Your task to perform on an android device: clear all cookies in the chrome app Image 0: 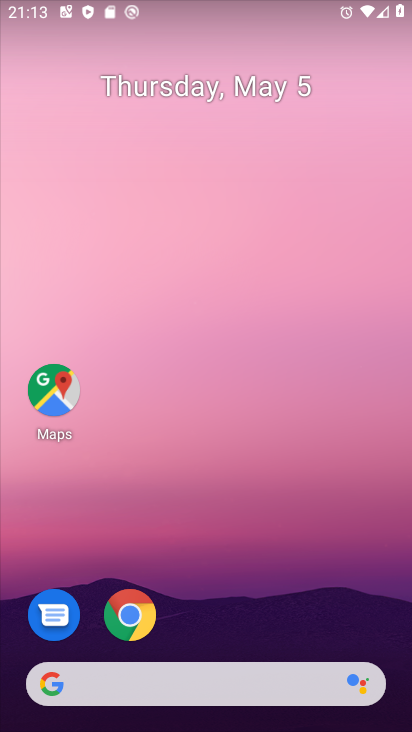
Step 0: click (143, 613)
Your task to perform on an android device: clear all cookies in the chrome app Image 1: 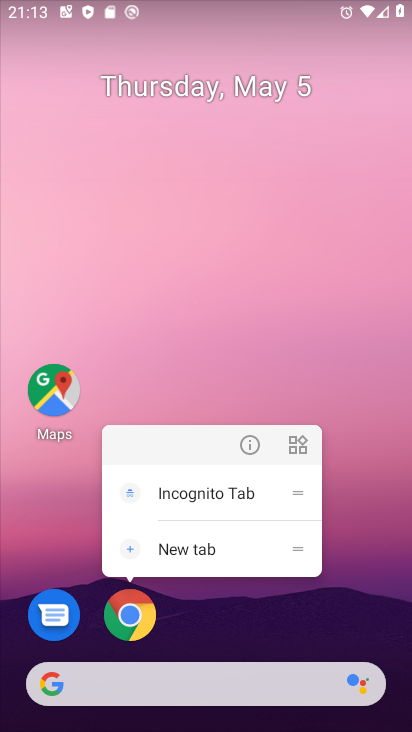
Step 1: click (243, 445)
Your task to perform on an android device: clear all cookies in the chrome app Image 2: 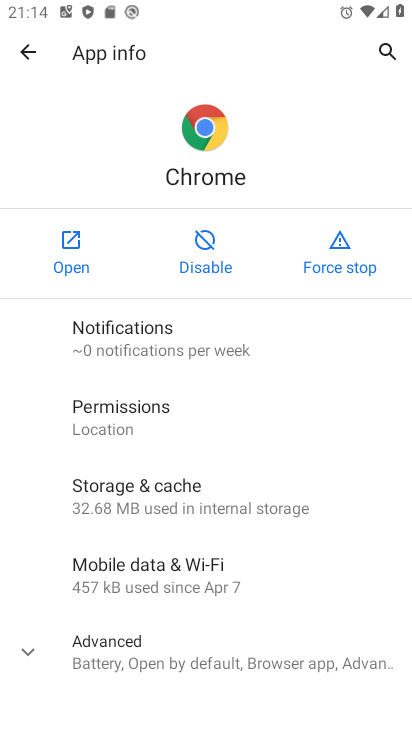
Step 2: click (74, 250)
Your task to perform on an android device: clear all cookies in the chrome app Image 3: 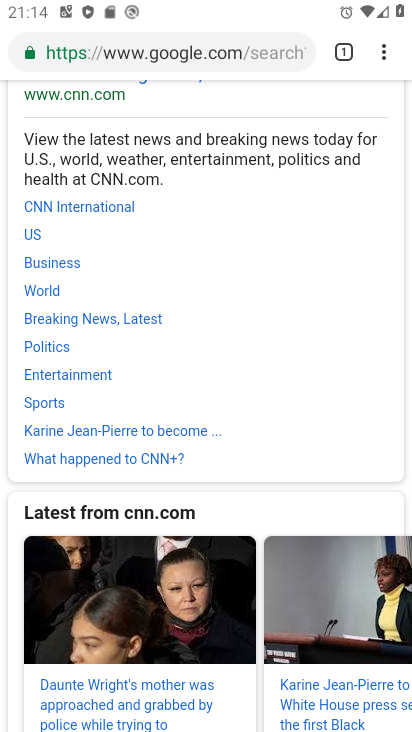
Step 3: click (378, 58)
Your task to perform on an android device: clear all cookies in the chrome app Image 4: 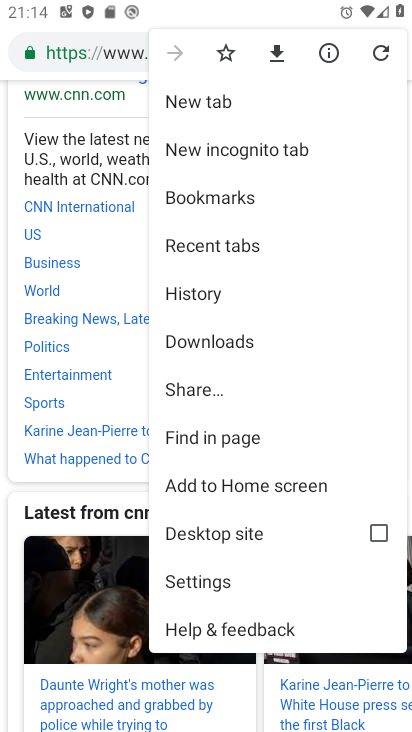
Step 4: click (217, 294)
Your task to perform on an android device: clear all cookies in the chrome app Image 5: 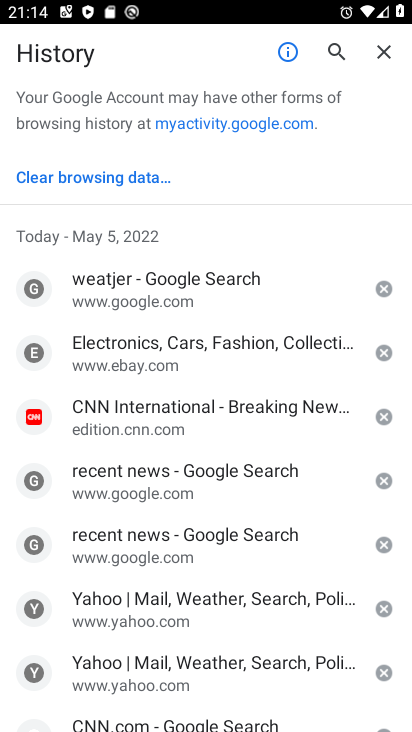
Step 5: click (127, 188)
Your task to perform on an android device: clear all cookies in the chrome app Image 6: 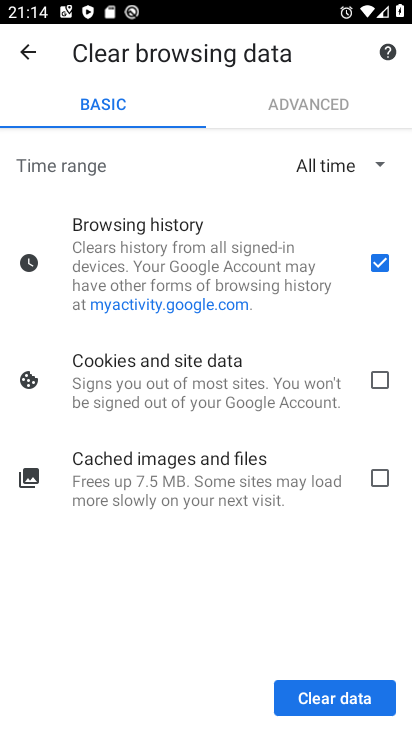
Step 6: click (372, 380)
Your task to perform on an android device: clear all cookies in the chrome app Image 7: 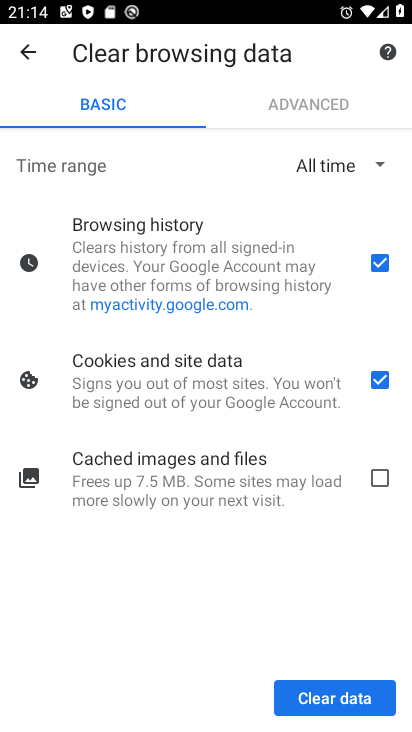
Step 7: click (371, 257)
Your task to perform on an android device: clear all cookies in the chrome app Image 8: 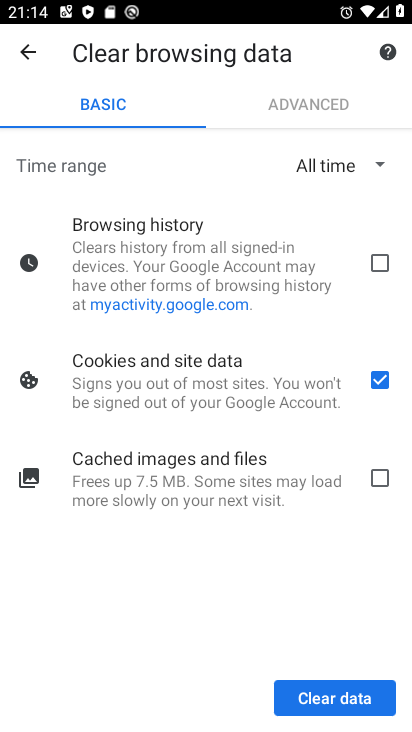
Step 8: click (340, 706)
Your task to perform on an android device: clear all cookies in the chrome app Image 9: 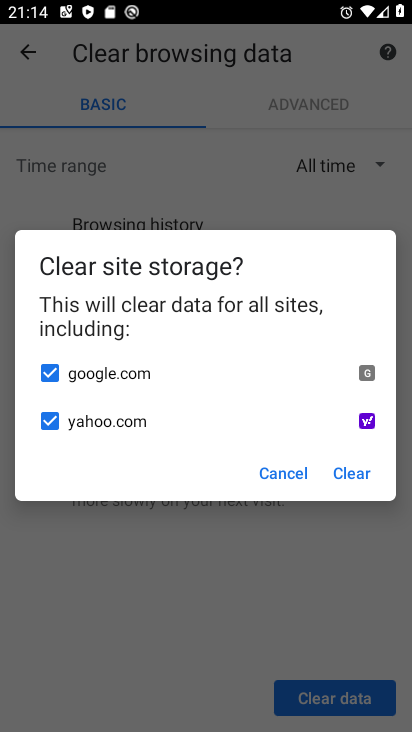
Step 9: click (351, 475)
Your task to perform on an android device: clear all cookies in the chrome app Image 10: 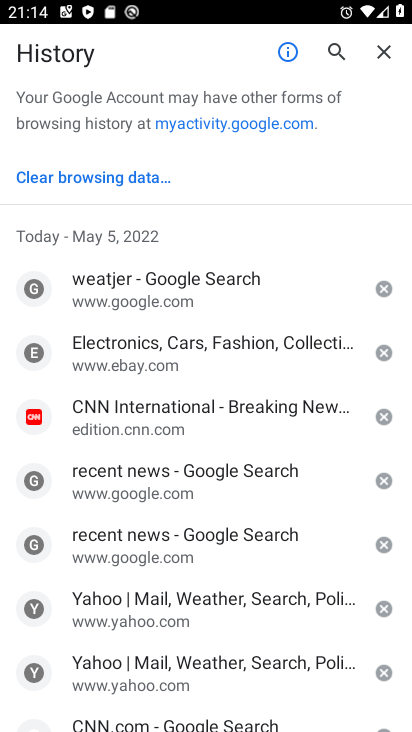
Step 10: task complete